Your task to perform on an android device: Search for Mexican restaurants on Maps Image 0: 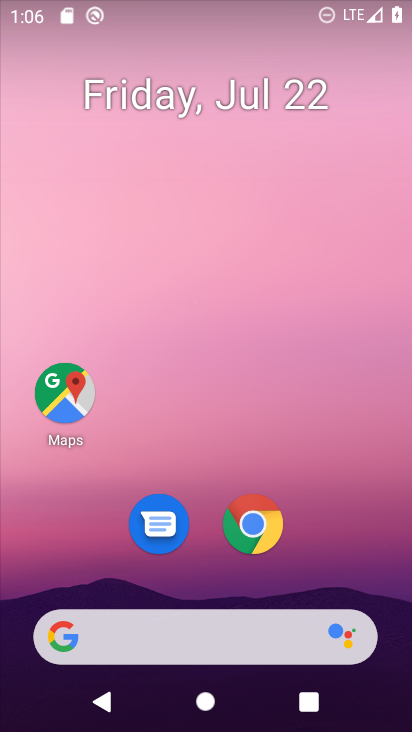
Step 0: click (74, 389)
Your task to perform on an android device: Search for Mexican restaurants on Maps Image 1: 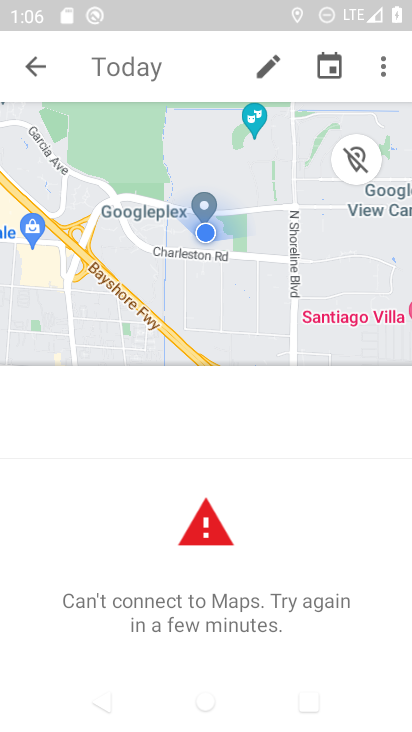
Step 1: click (36, 66)
Your task to perform on an android device: Search for Mexican restaurants on Maps Image 2: 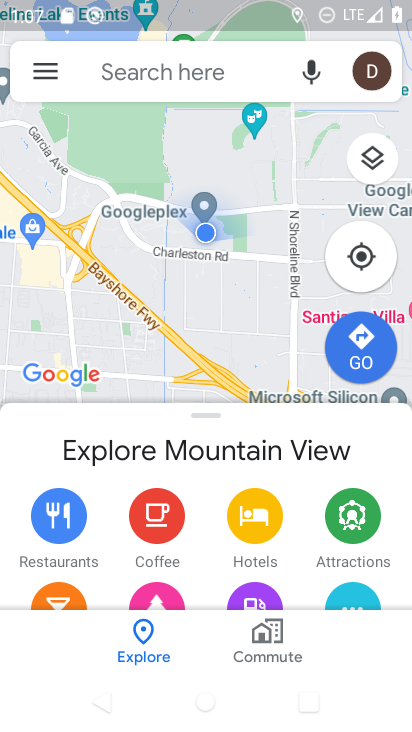
Step 2: click (115, 66)
Your task to perform on an android device: Search for Mexican restaurants on Maps Image 3: 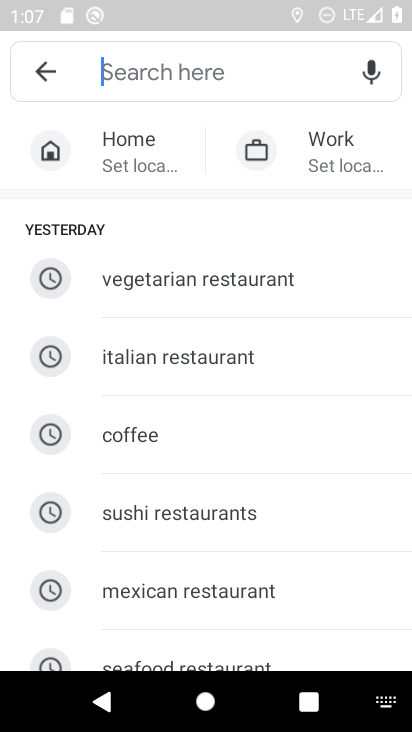
Step 3: click (196, 587)
Your task to perform on an android device: Search for Mexican restaurants on Maps Image 4: 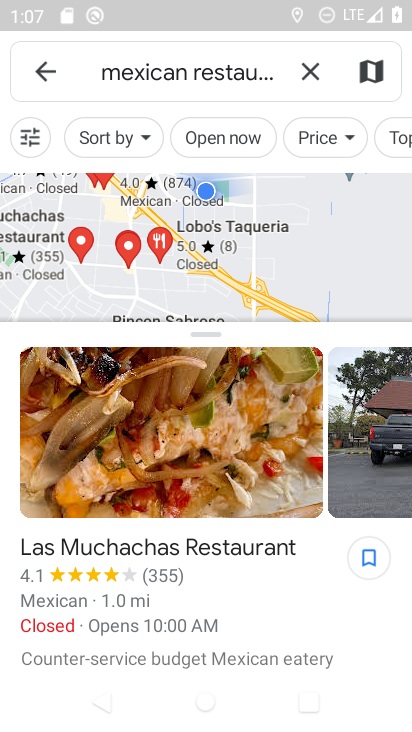
Step 4: task complete